Your task to perform on an android device: change the clock style Image 0: 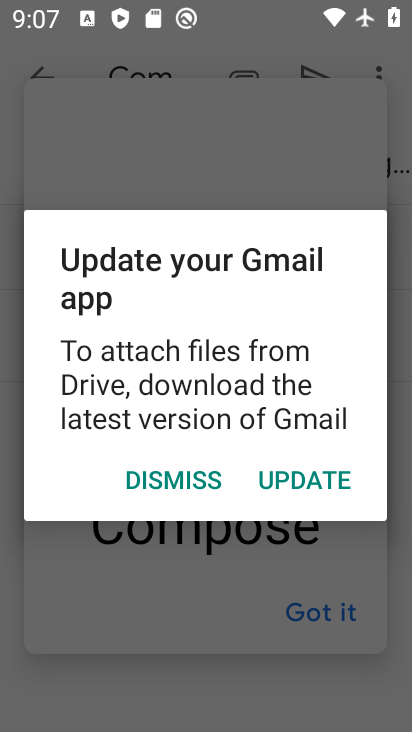
Step 0: press home button
Your task to perform on an android device: change the clock style Image 1: 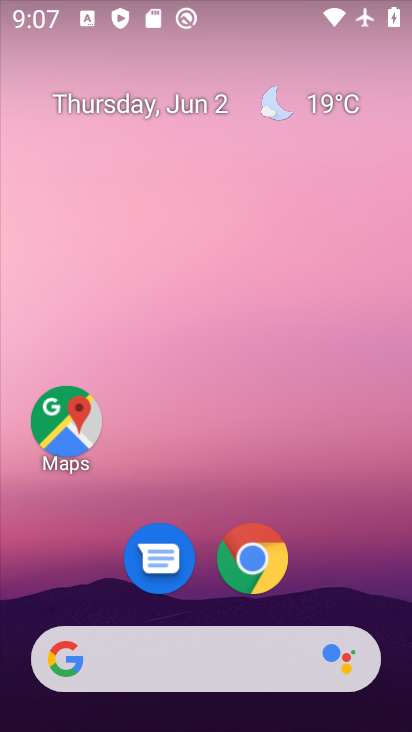
Step 1: drag from (384, 611) to (311, 178)
Your task to perform on an android device: change the clock style Image 2: 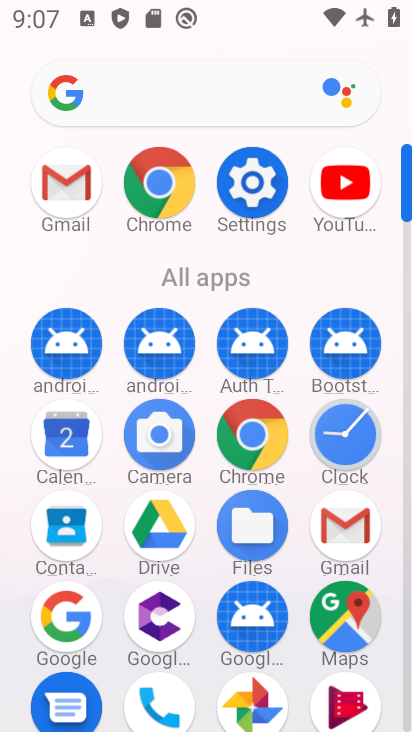
Step 2: click (408, 676)
Your task to perform on an android device: change the clock style Image 3: 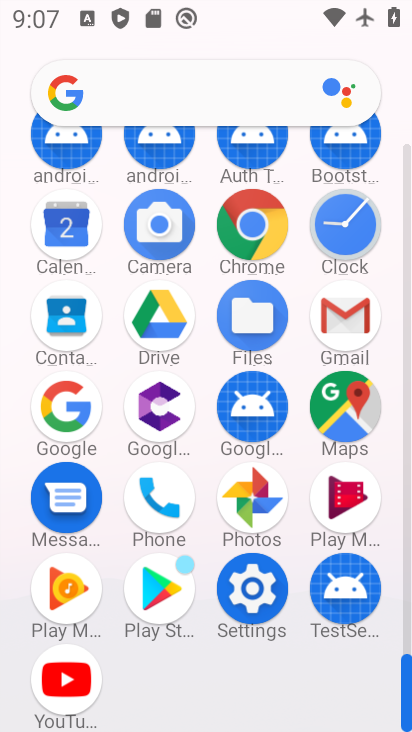
Step 3: click (338, 215)
Your task to perform on an android device: change the clock style Image 4: 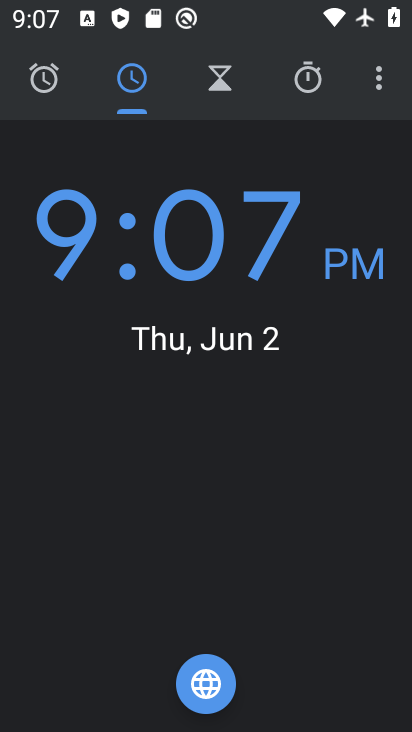
Step 4: click (378, 89)
Your task to perform on an android device: change the clock style Image 5: 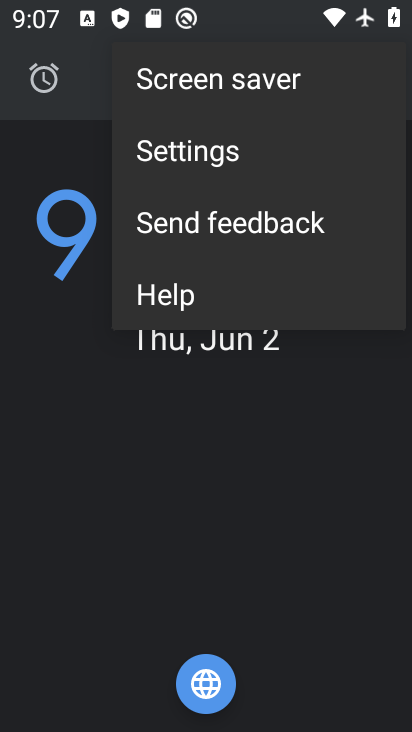
Step 5: click (205, 148)
Your task to perform on an android device: change the clock style Image 6: 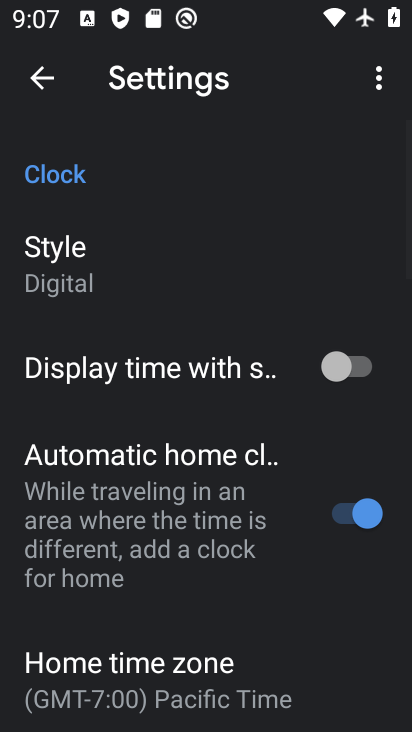
Step 6: click (75, 264)
Your task to perform on an android device: change the clock style Image 7: 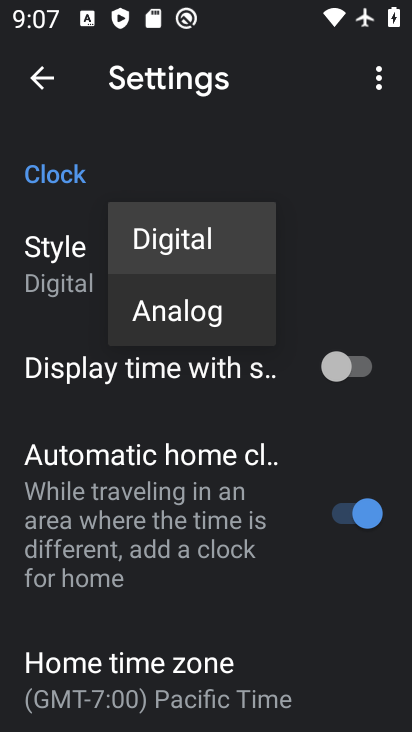
Step 7: click (163, 302)
Your task to perform on an android device: change the clock style Image 8: 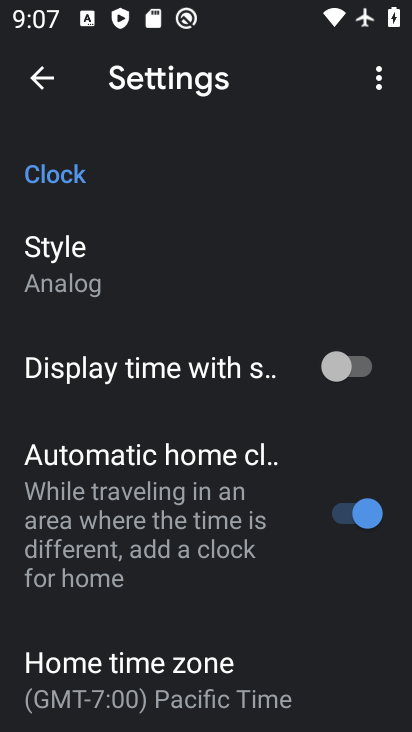
Step 8: task complete